Your task to perform on an android device: turn notification dots on Image 0: 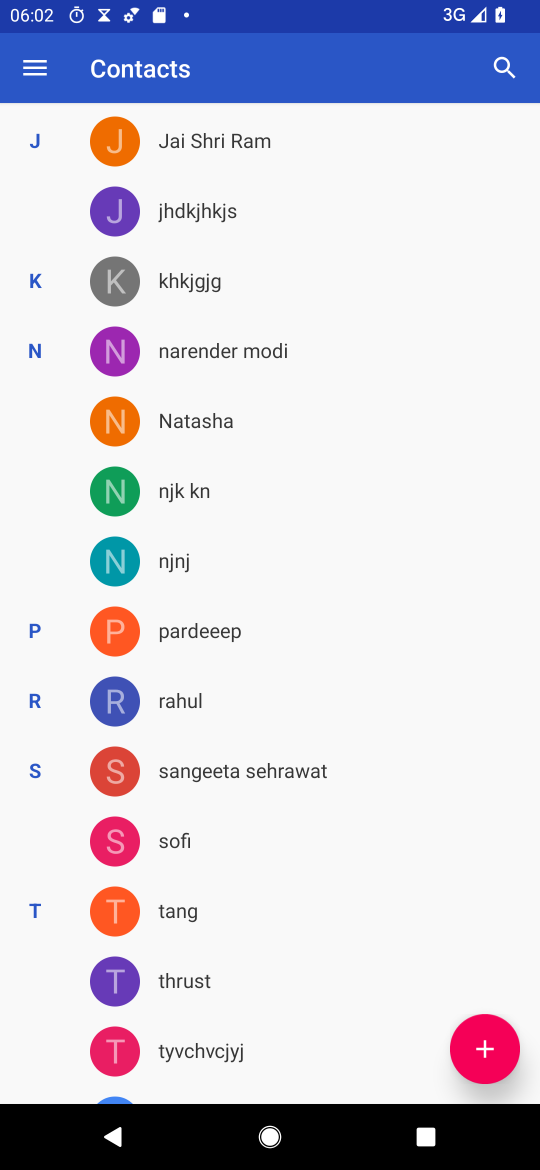
Step 0: press home button
Your task to perform on an android device: turn notification dots on Image 1: 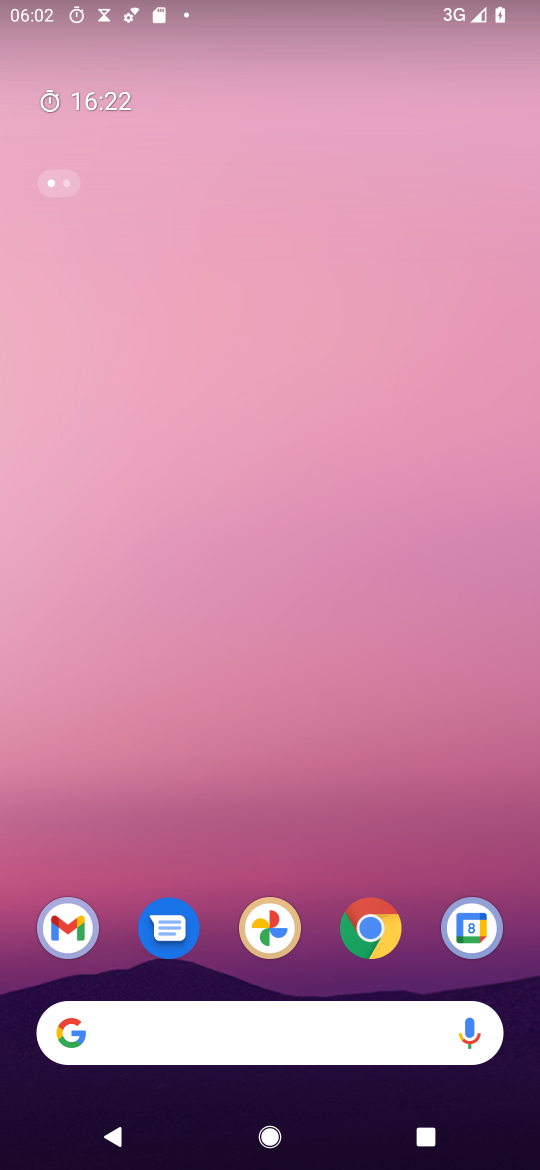
Step 1: drag from (233, 966) to (300, 40)
Your task to perform on an android device: turn notification dots on Image 2: 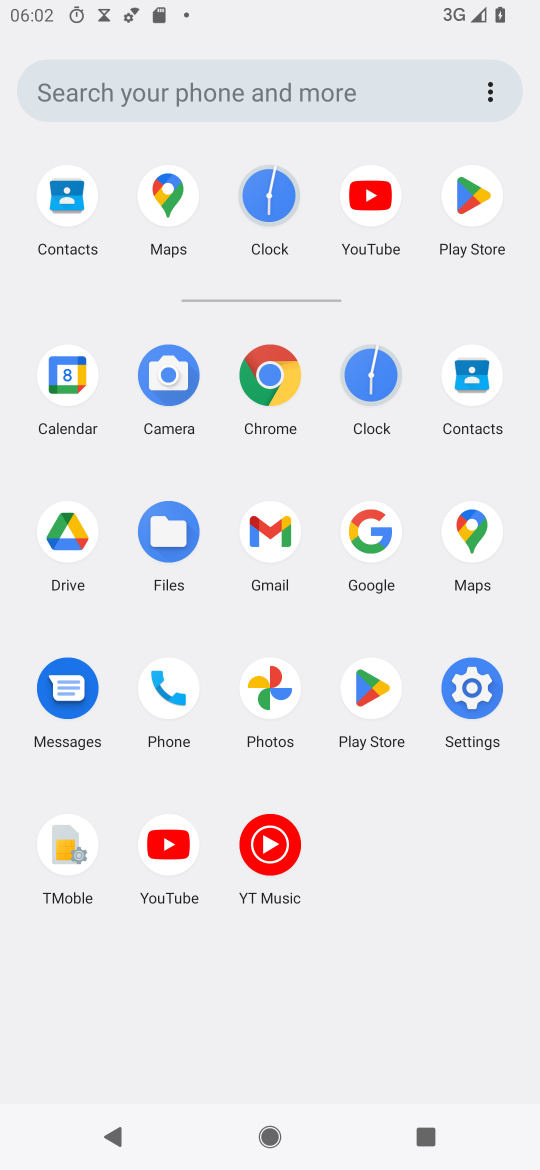
Step 2: click (475, 700)
Your task to perform on an android device: turn notification dots on Image 3: 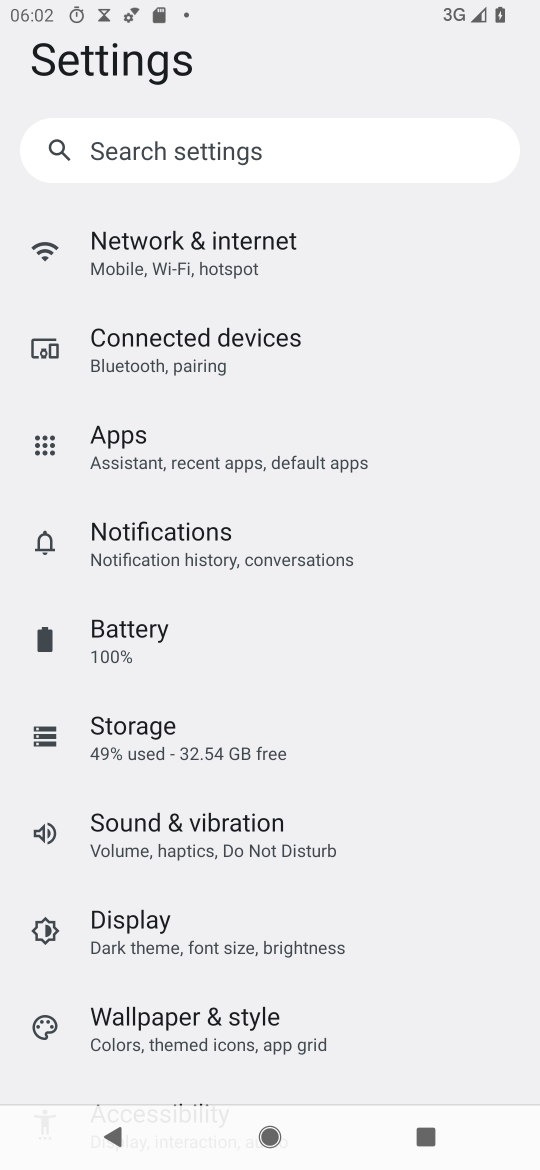
Step 3: click (229, 557)
Your task to perform on an android device: turn notification dots on Image 4: 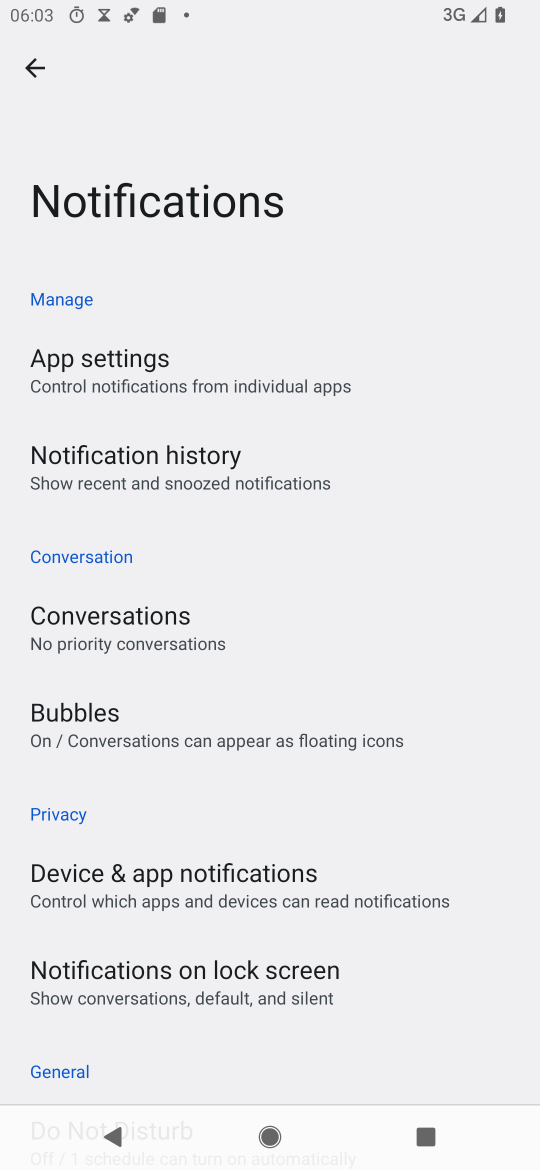
Step 4: task complete